Your task to perform on an android device: toggle improve location accuracy Image 0: 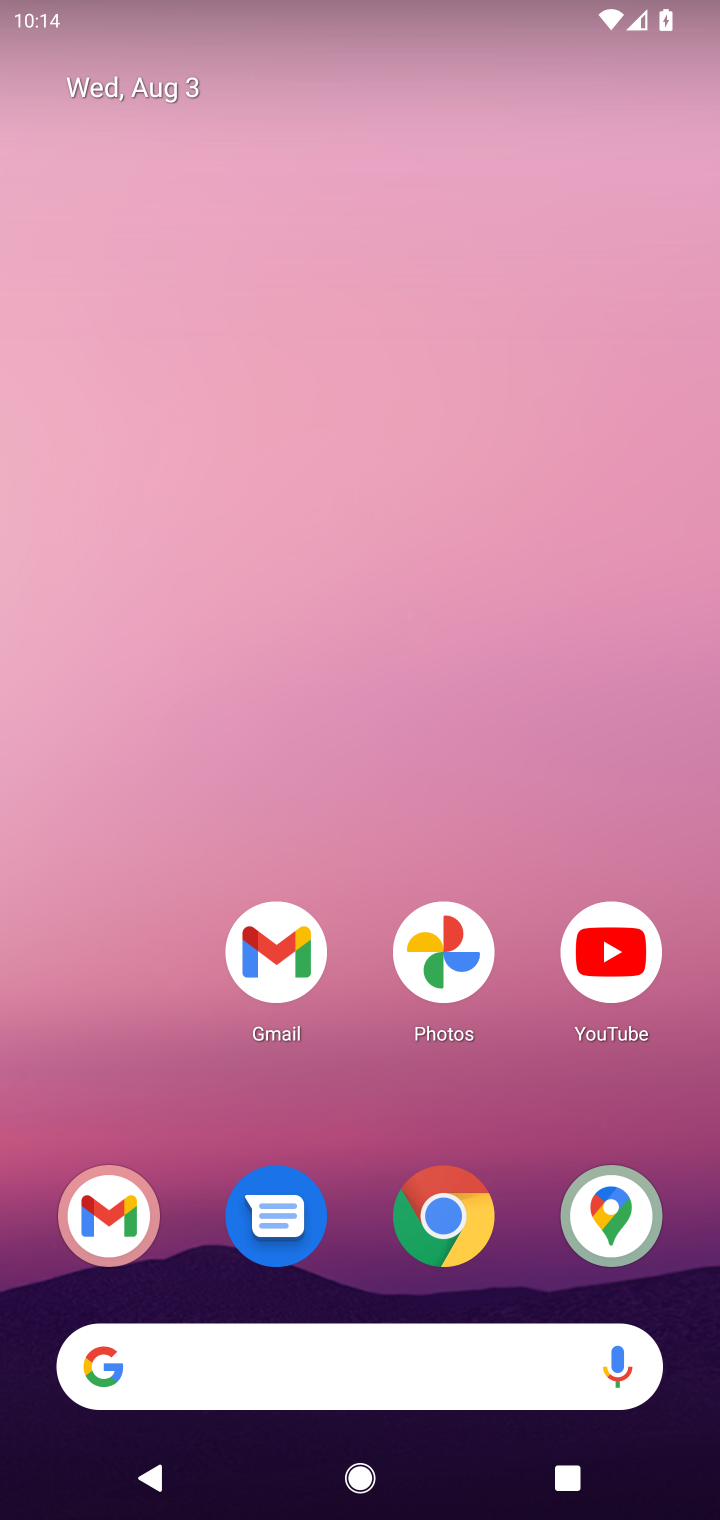
Step 0: drag from (68, 929) to (224, 80)
Your task to perform on an android device: toggle improve location accuracy Image 1: 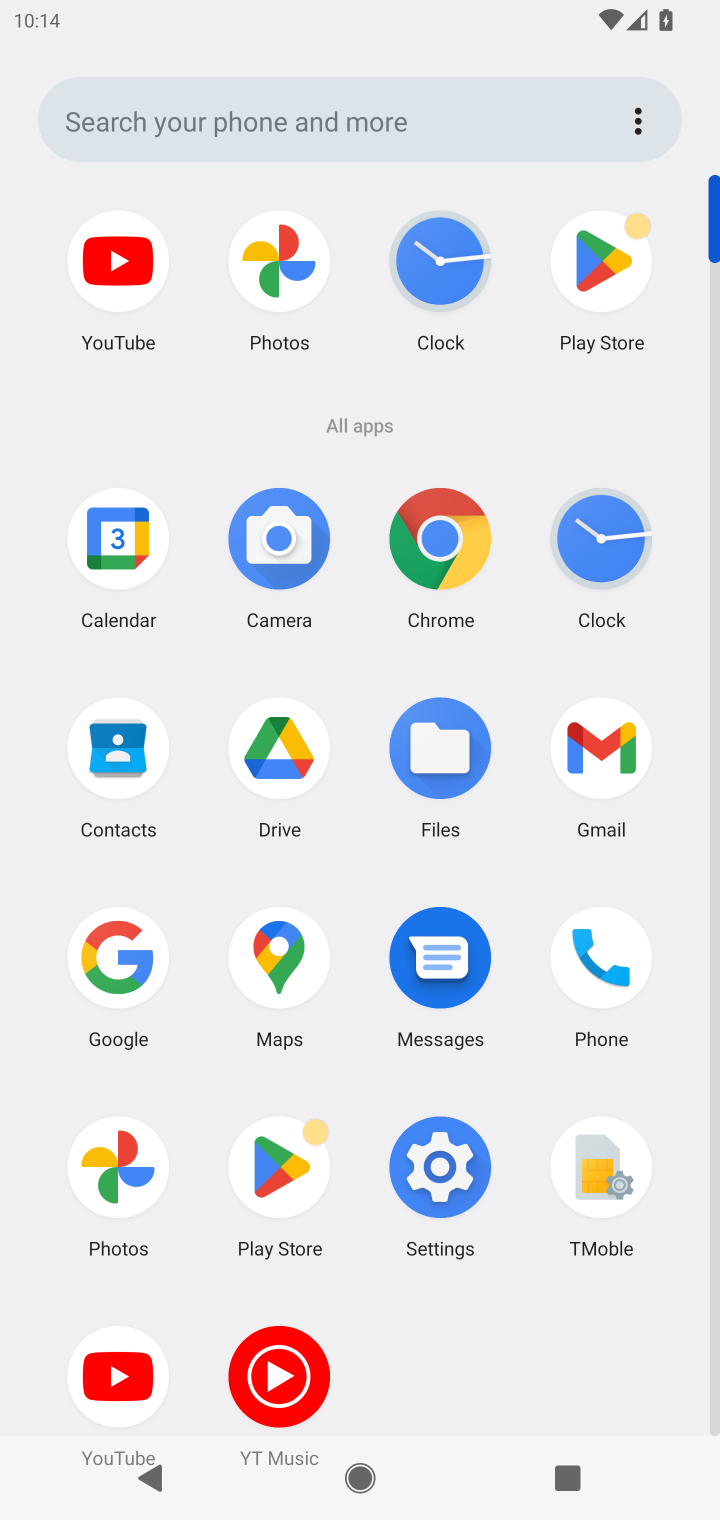
Step 1: click (466, 1186)
Your task to perform on an android device: toggle improve location accuracy Image 2: 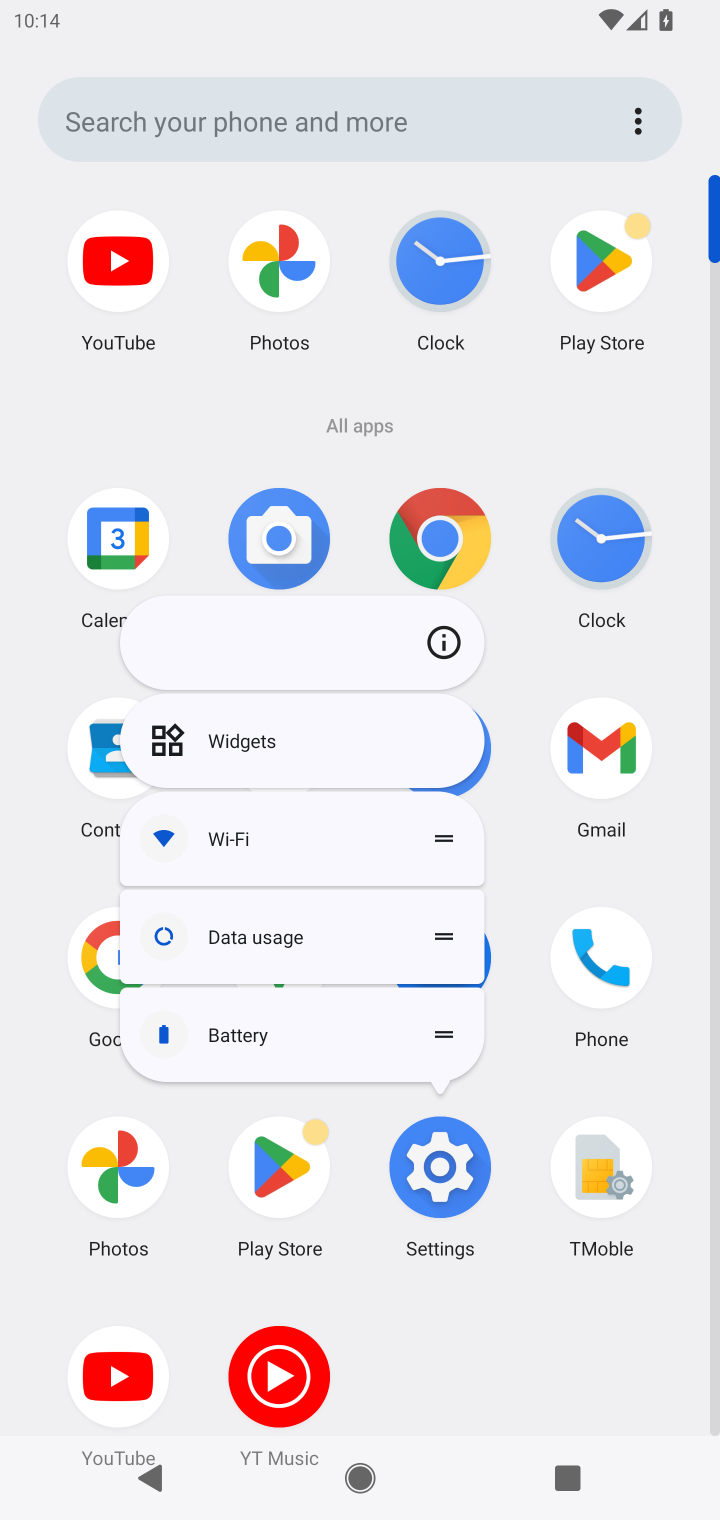
Step 2: click (451, 1171)
Your task to perform on an android device: toggle improve location accuracy Image 3: 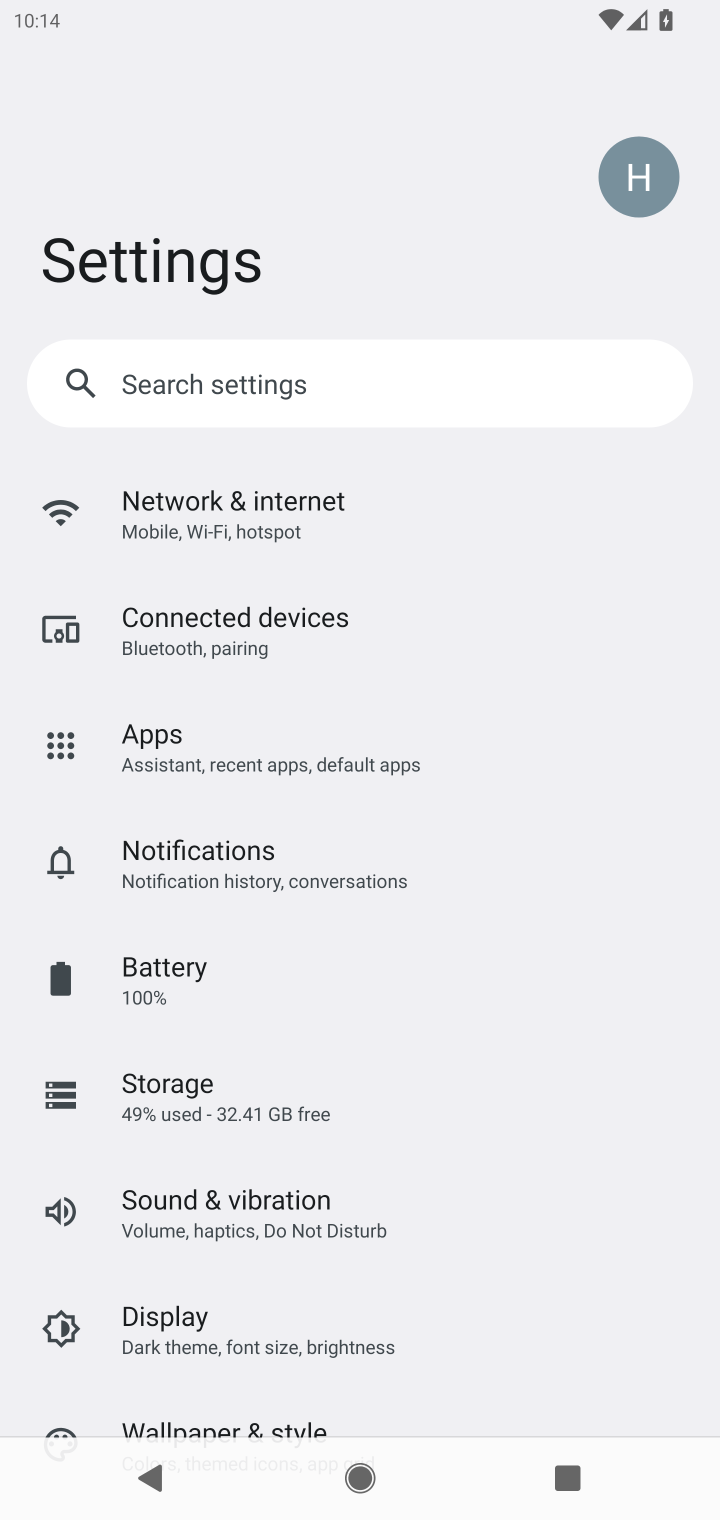
Step 3: drag from (316, 1272) to (501, 190)
Your task to perform on an android device: toggle improve location accuracy Image 4: 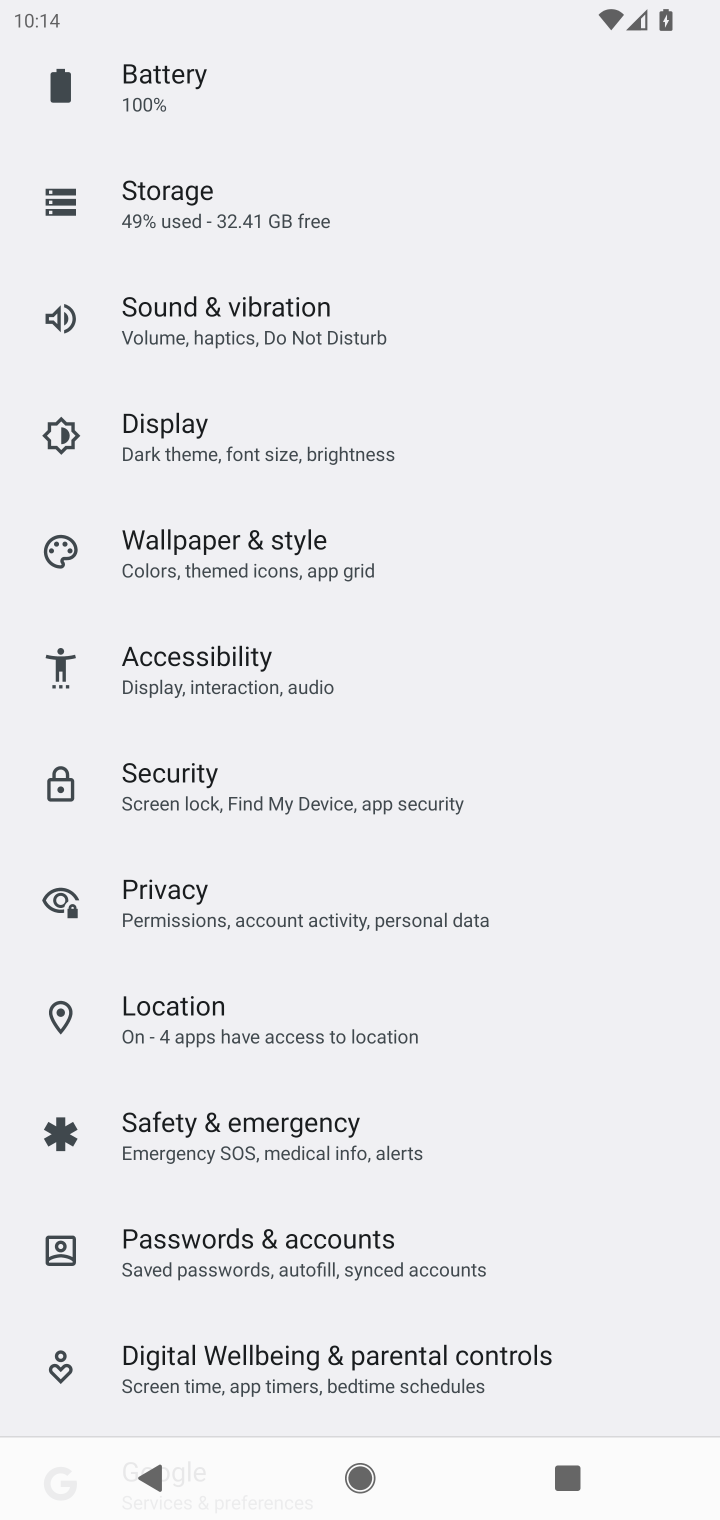
Step 4: click (198, 1016)
Your task to perform on an android device: toggle improve location accuracy Image 5: 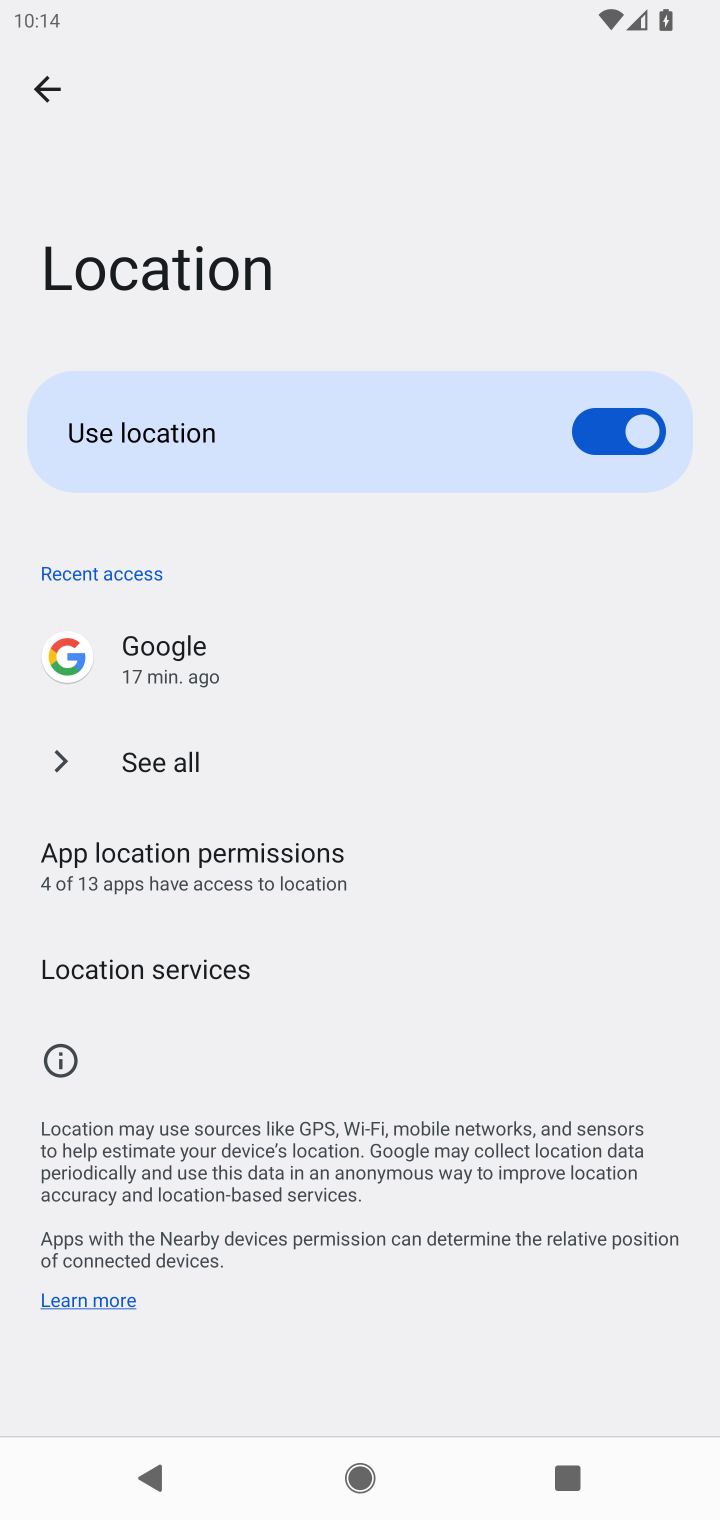
Step 5: click (213, 974)
Your task to perform on an android device: toggle improve location accuracy Image 6: 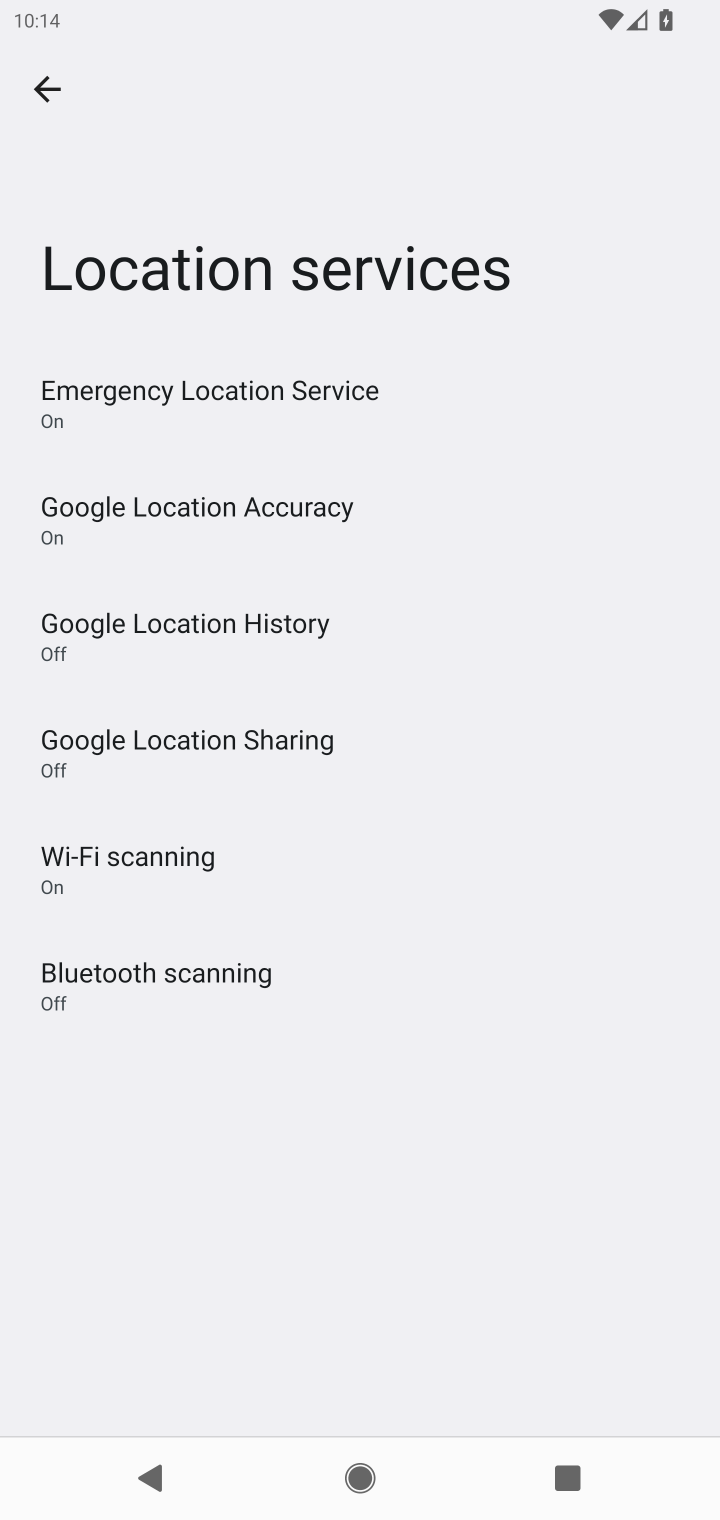
Step 6: click (276, 499)
Your task to perform on an android device: toggle improve location accuracy Image 7: 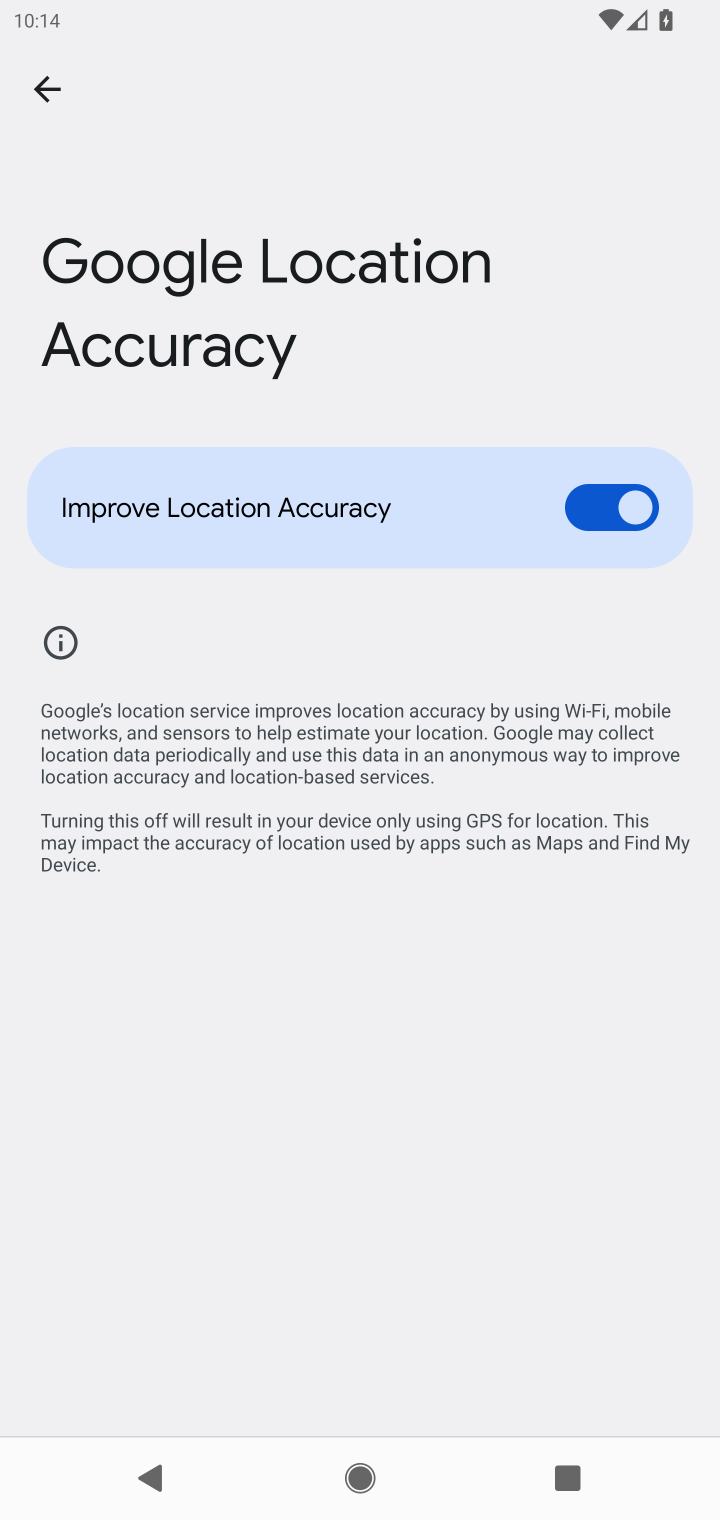
Step 7: click (619, 509)
Your task to perform on an android device: toggle improve location accuracy Image 8: 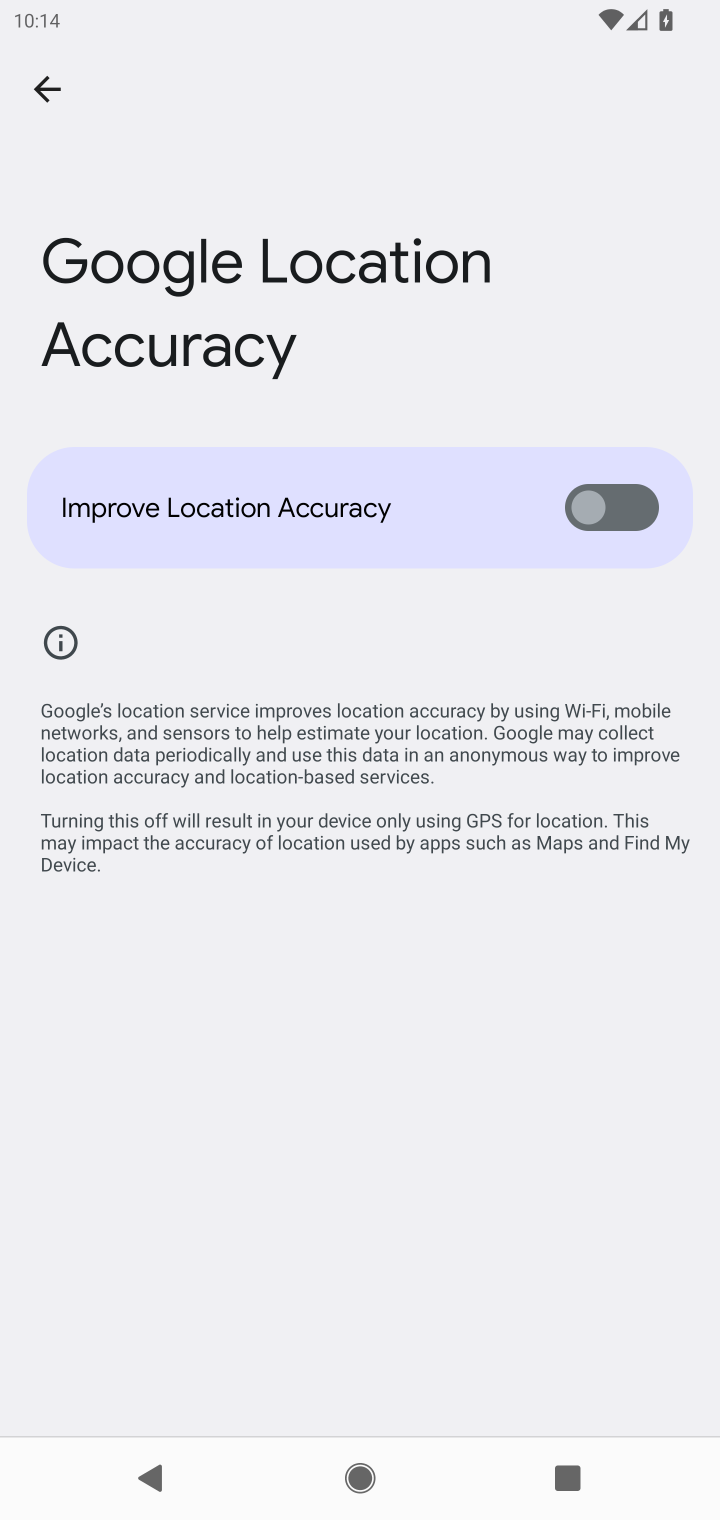
Step 8: task complete